Your task to perform on an android device: change the clock display to show seconds Image 0: 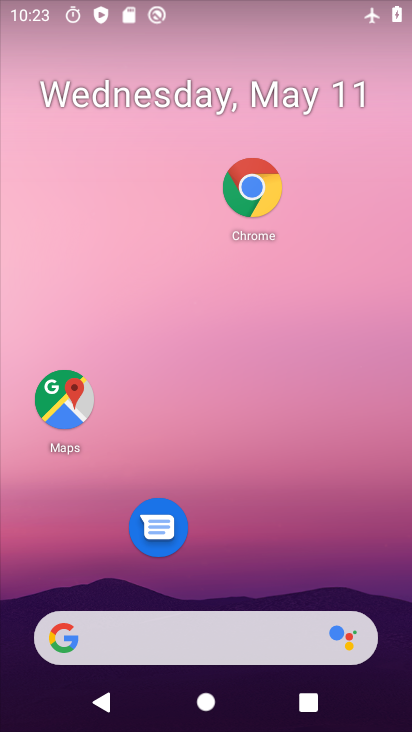
Step 0: drag from (227, 605) to (221, 310)
Your task to perform on an android device: change the clock display to show seconds Image 1: 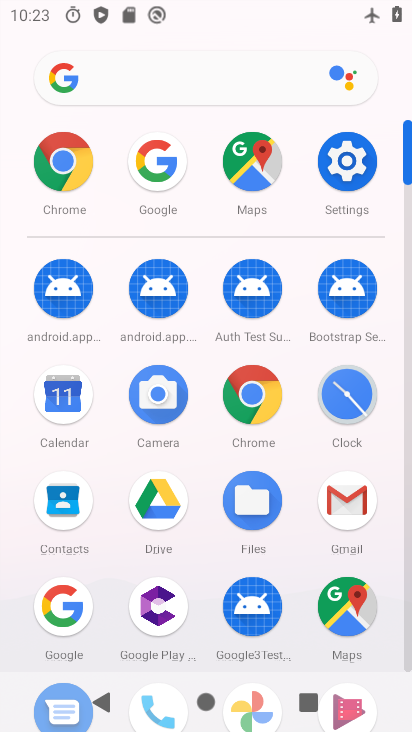
Step 1: click (349, 408)
Your task to perform on an android device: change the clock display to show seconds Image 2: 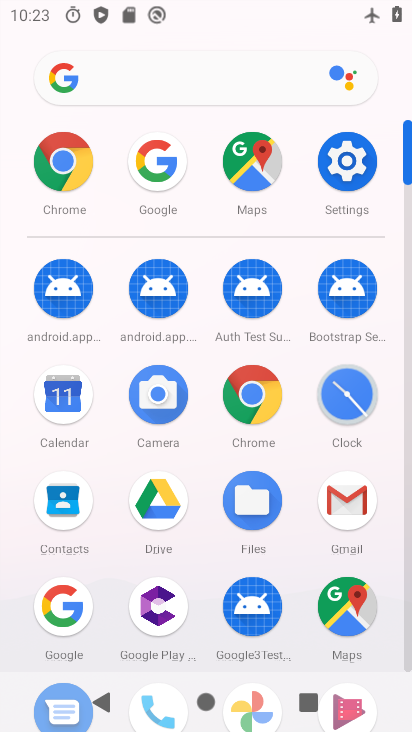
Step 2: click (349, 408)
Your task to perform on an android device: change the clock display to show seconds Image 3: 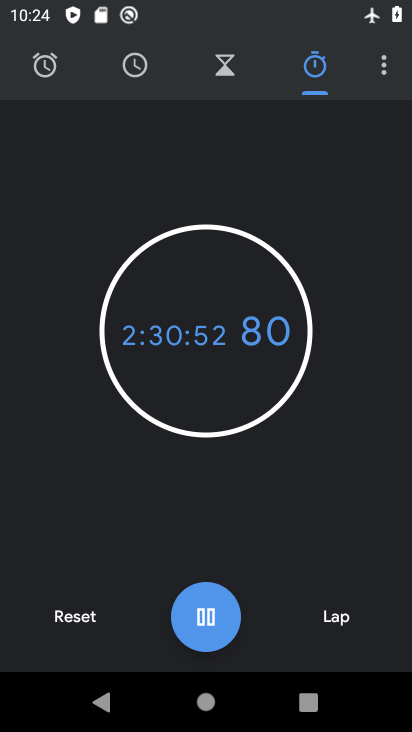
Step 3: click (388, 71)
Your task to perform on an android device: change the clock display to show seconds Image 4: 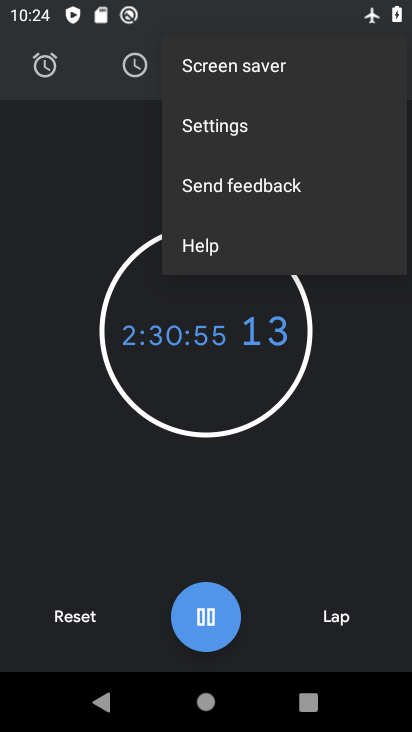
Step 4: click (291, 120)
Your task to perform on an android device: change the clock display to show seconds Image 5: 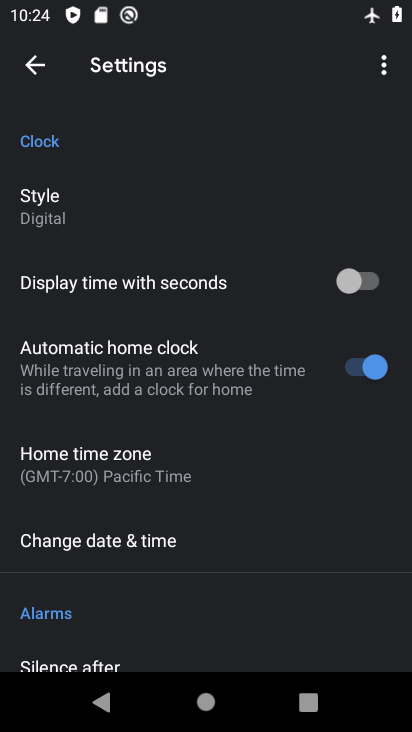
Step 5: click (372, 290)
Your task to perform on an android device: change the clock display to show seconds Image 6: 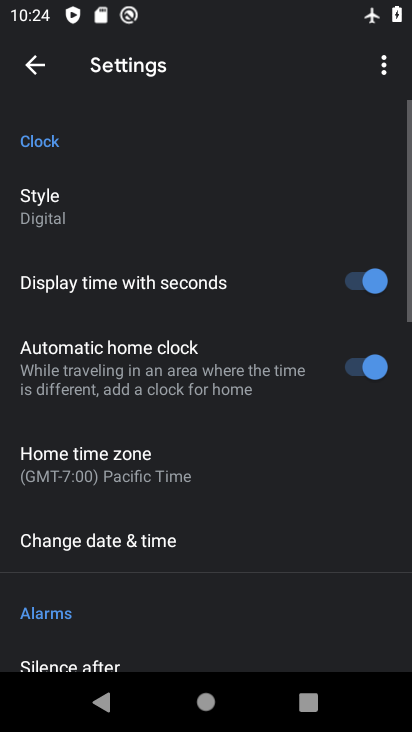
Step 6: task complete